Your task to perform on an android device: toggle show notifications on the lock screen Image 0: 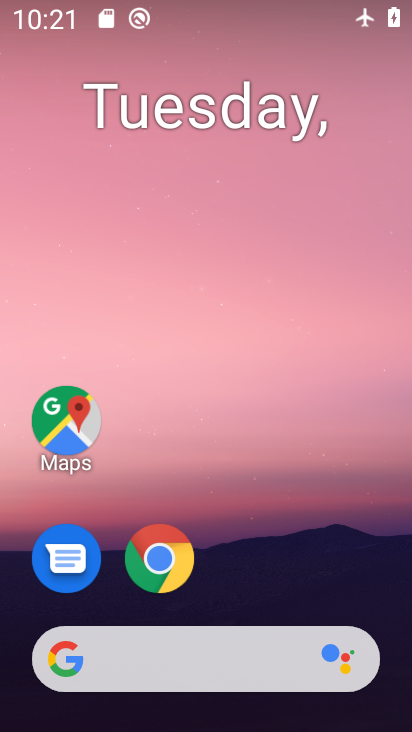
Step 0: drag from (364, 557) to (367, 83)
Your task to perform on an android device: toggle show notifications on the lock screen Image 1: 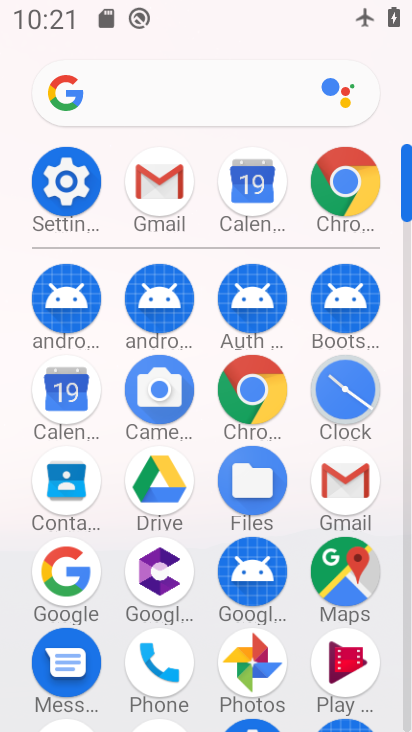
Step 1: click (76, 190)
Your task to perform on an android device: toggle show notifications on the lock screen Image 2: 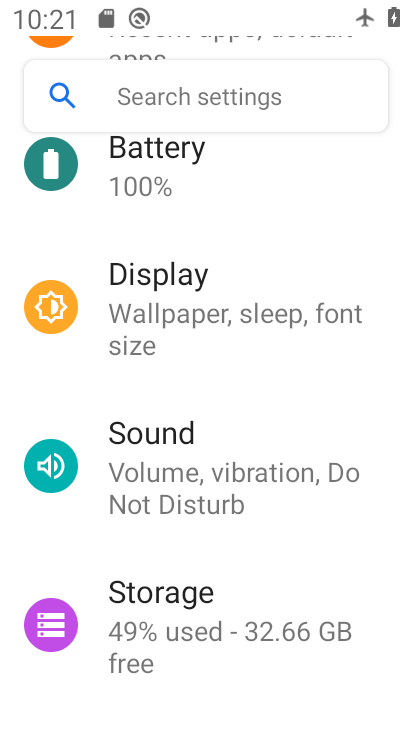
Step 2: drag from (363, 221) to (354, 359)
Your task to perform on an android device: toggle show notifications on the lock screen Image 3: 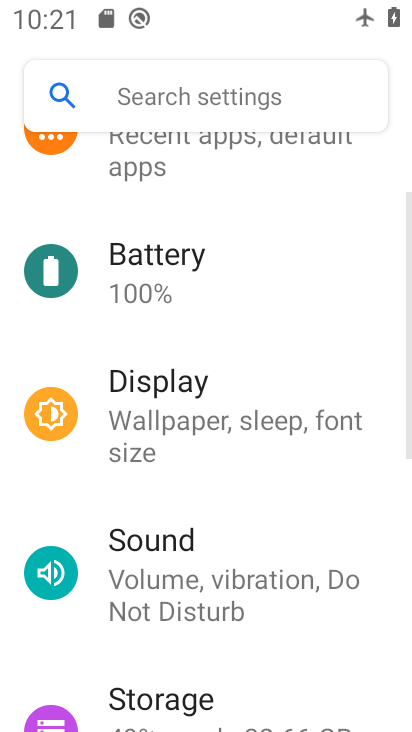
Step 3: drag from (341, 223) to (347, 362)
Your task to perform on an android device: toggle show notifications on the lock screen Image 4: 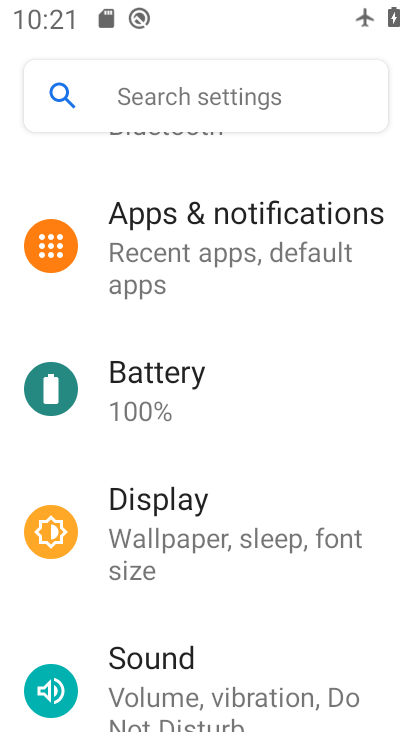
Step 4: drag from (340, 290) to (338, 428)
Your task to perform on an android device: toggle show notifications on the lock screen Image 5: 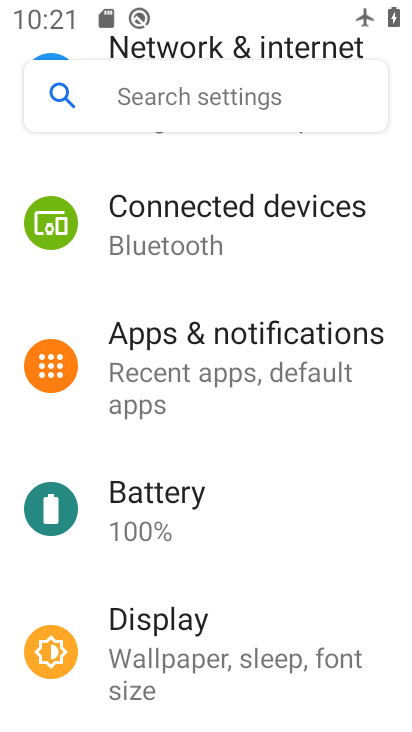
Step 5: drag from (334, 256) to (344, 385)
Your task to perform on an android device: toggle show notifications on the lock screen Image 6: 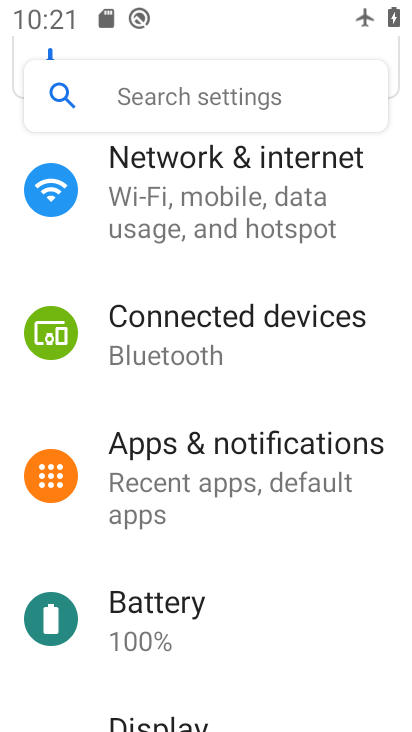
Step 6: drag from (365, 200) to (368, 344)
Your task to perform on an android device: toggle show notifications on the lock screen Image 7: 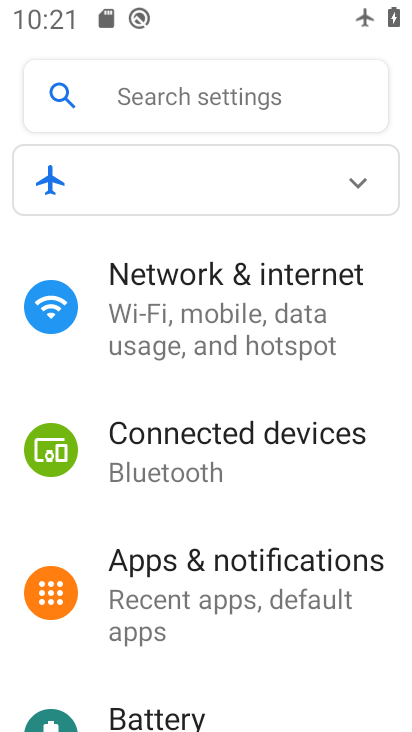
Step 7: click (307, 540)
Your task to perform on an android device: toggle show notifications on the lock screen Image 8: 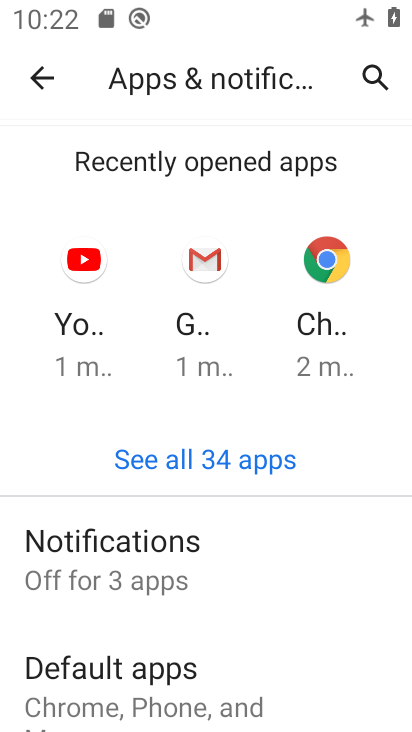
Step 8: click (165, 566)
Your task to perform on an android device: toggle show notifications on the lock screen Image 9: 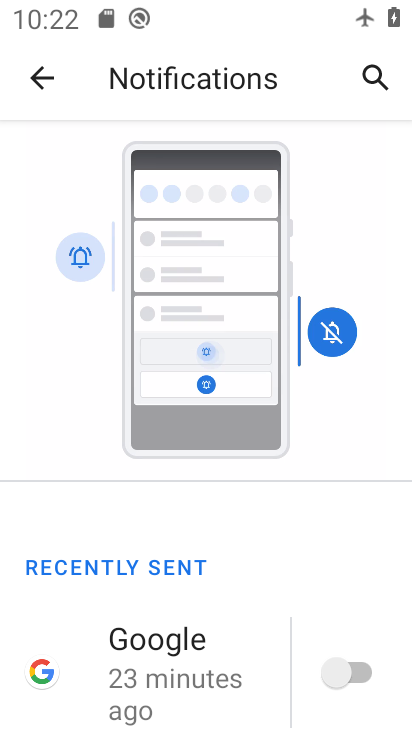
Step 9: drag from (255, 606) to (251, 438)
Your task to perform on an android device: toggle show notifications on the lock screen Image 10: 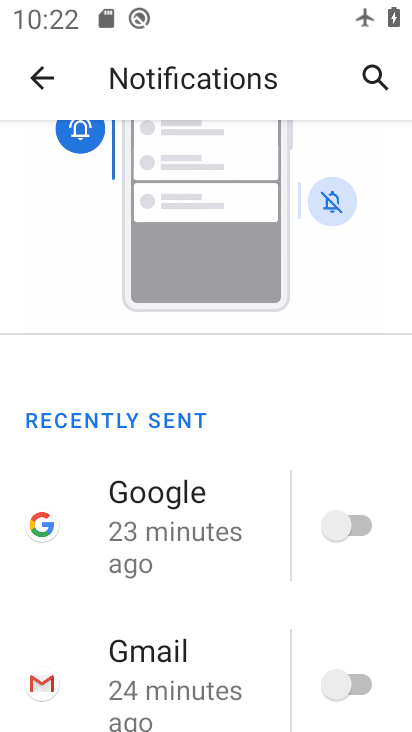
Step 10: drag from (254, 610) to (256, 461)
Your task to perform on an android device: toggle show notifications on the lock screen Image 11: 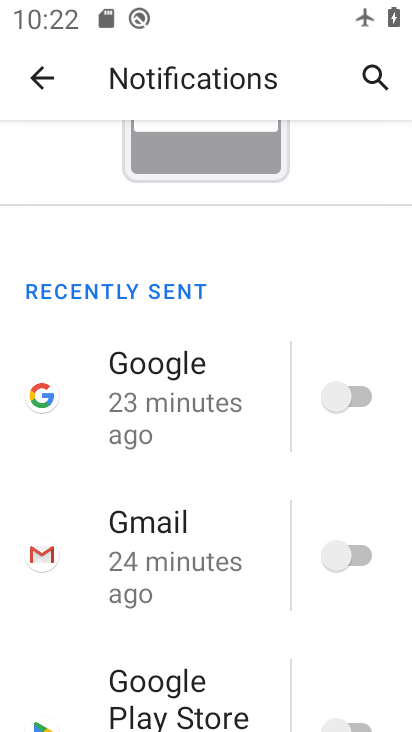
Step 11: drag from (251, 637) to (251, 484)
Your task to perform on an android device: toggle show notifications on the lock screen Image 12: 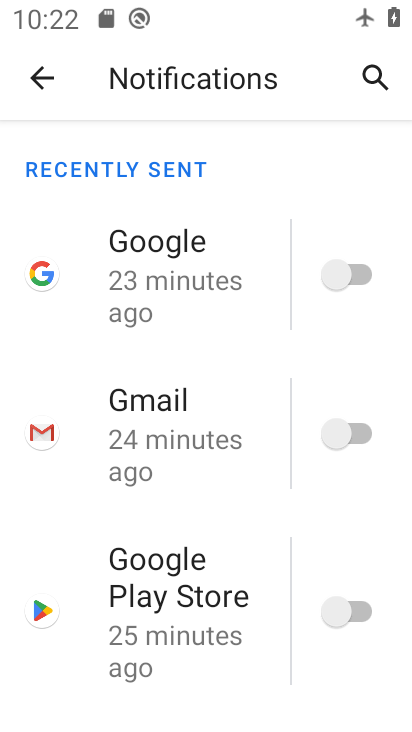
Step 12: drag from (263, 643) to (264, 508)
Your task to perform on an android device: toggle show notifications on the lock screen Image 13: 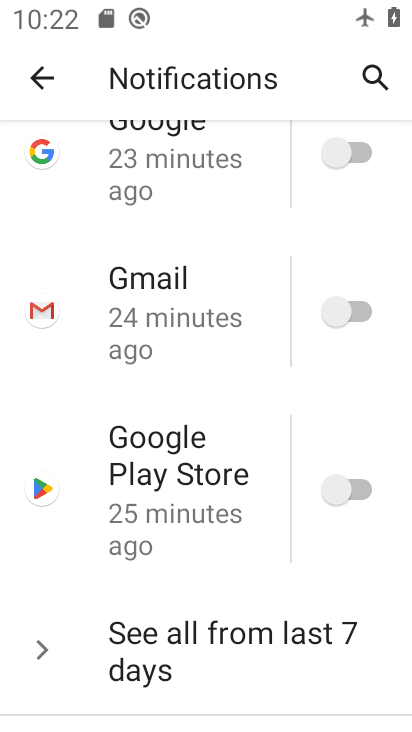
Step 13: drag from (246, 660) to (264, 501)
Your task to perform on an android device: toggle show notifications on the lock screen Image 14: 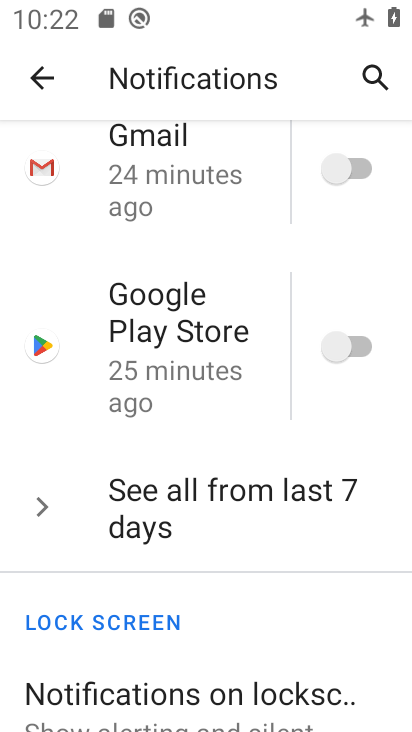
Step 14: drag from (238, 645) to (260, 476)
Your task to perform on an android device: toggle show notifications on the lock screen Image 15: 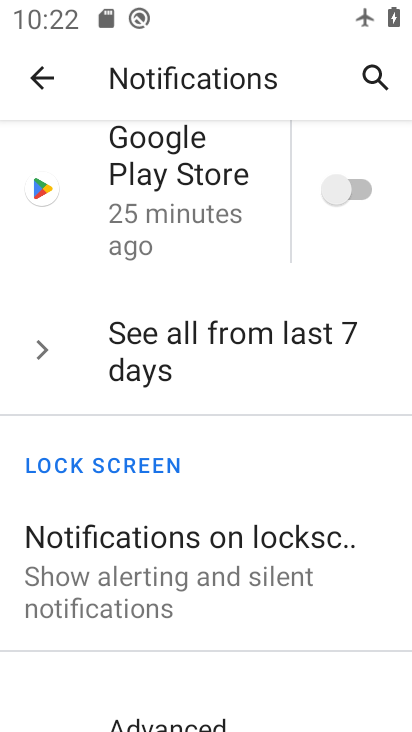
Step 15: click (250, 552)
Your task to perform on an android device: toggle show notifications on the lock screen Image 16: 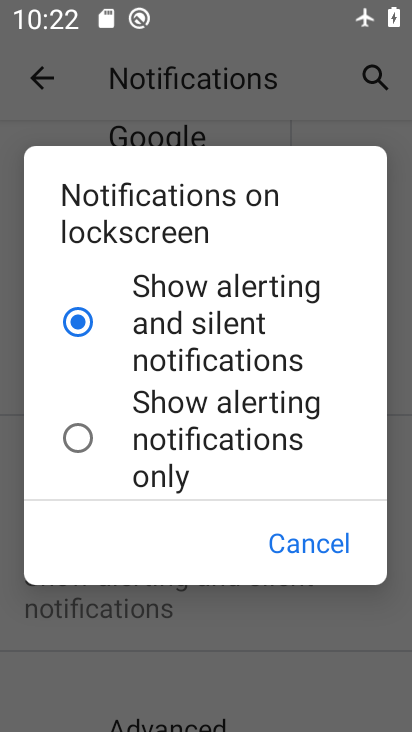
Step 16: click (202, 415)
Your task to perform on an android device: toggle show notifications on the lock screen Image 17: 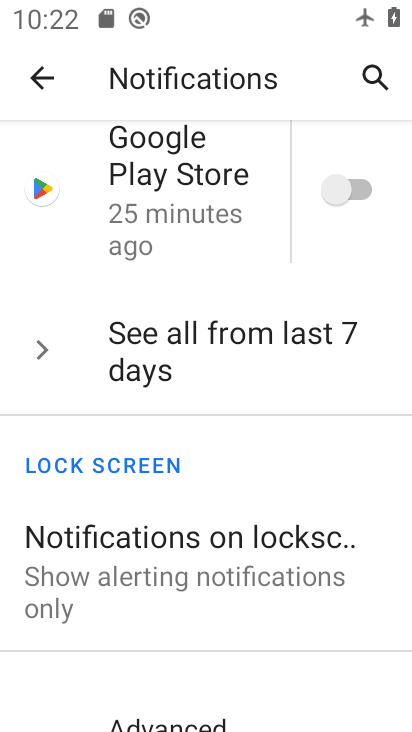
Step 17: task complete